Your task to perform on an android device: clear history in the chrome app Image 0: 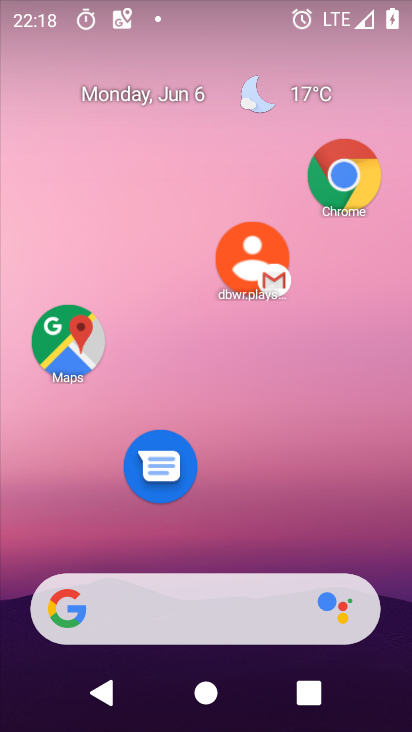
Step 0: click (225, 155)
Your task to perform on an android device: clear history in the chrome app Image 1: 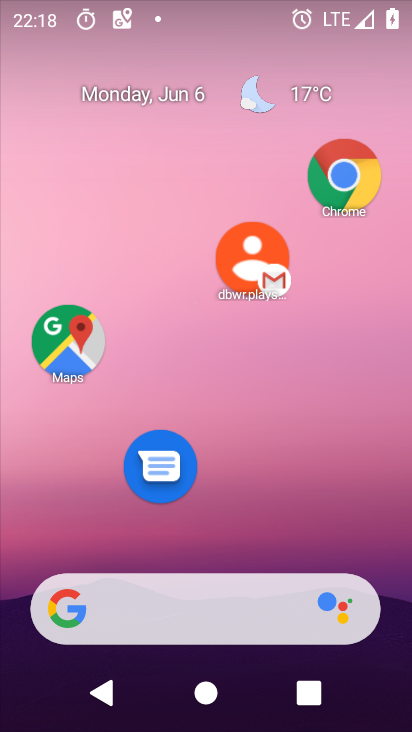
Step 1: click (342, 169)
Your task to perform on an android device: clear history in the chrome app Image 2: 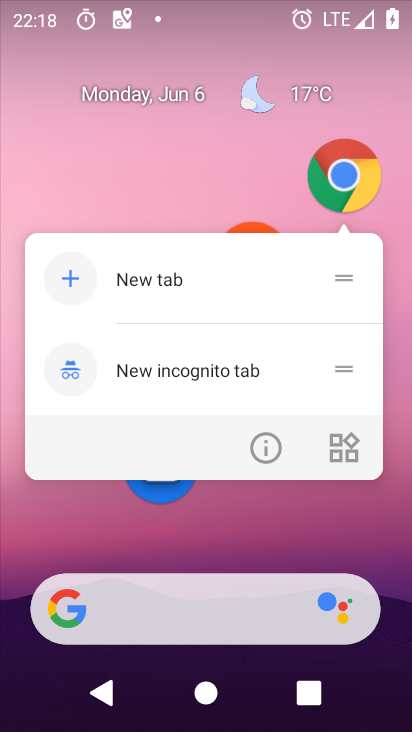
Step 2: click (271, 432)
Your task to perform on an android device: clear history in the chrome app Image 3: 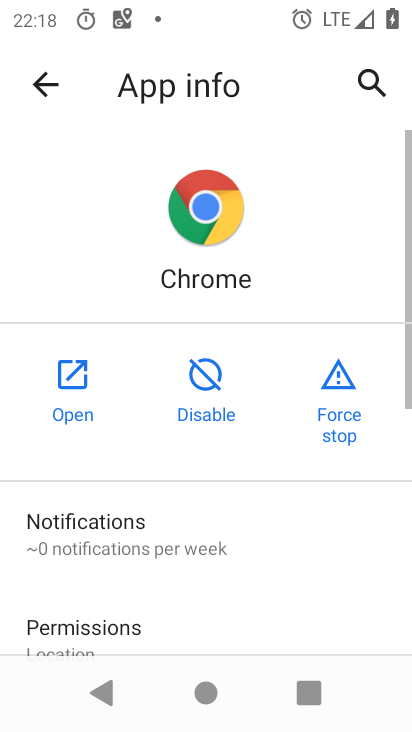
Step 3: click (92, 382)
Your task to perform on an android device: clear history in the chrome app Image 4: 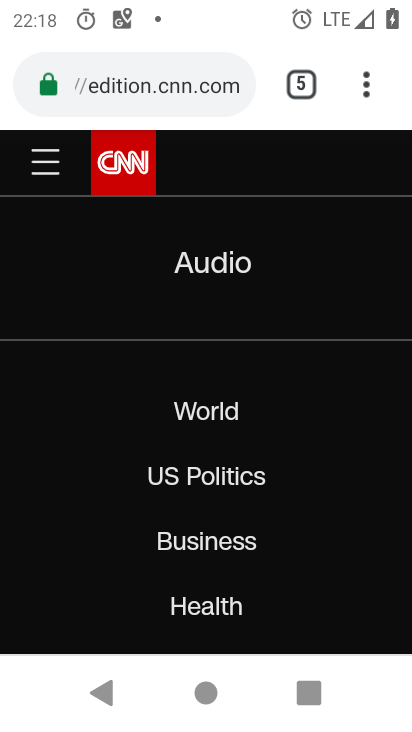
Step 4: drag from (373, 79) to (114, 497)
Your task to perform on an android device: clear history in the chrome app Image 5: 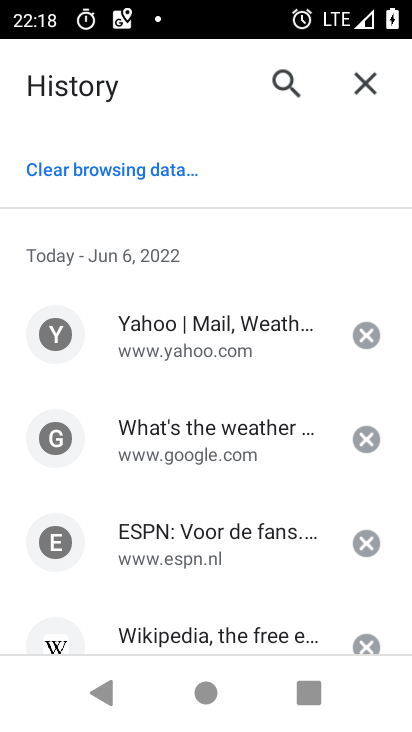
Step 5: click (85, 164)
Your task to perform on an android device: clear history in the chrome app Image 6: 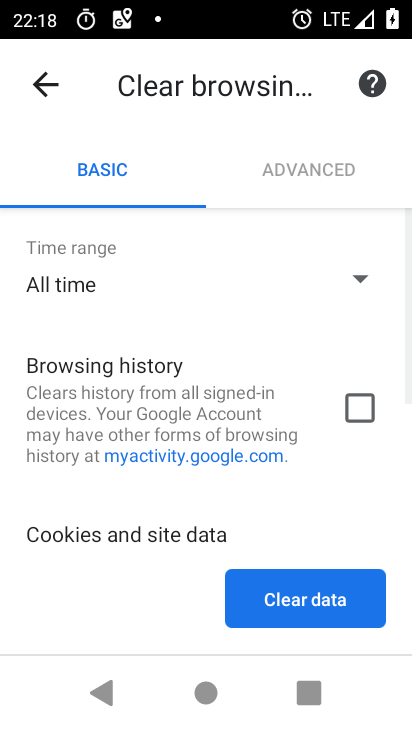
Step 6: drag from (311, 548) to (349, 278)
Your task to perform on an android device: clear history in the chrome app Image 7: 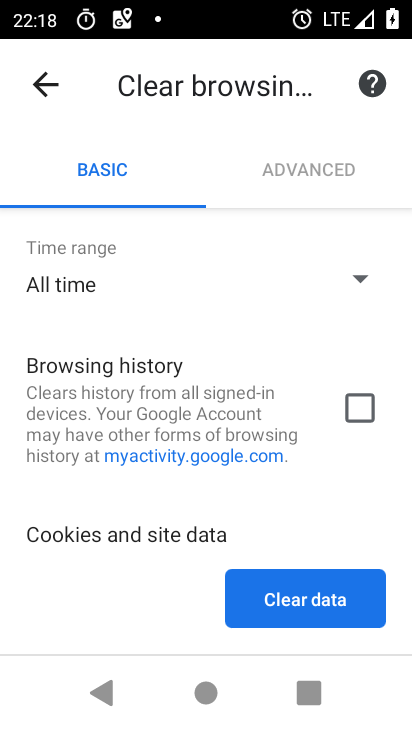
Step 7: click (285, 601)
Your task to perform on an android device: clear history in the chrome app Image 8: 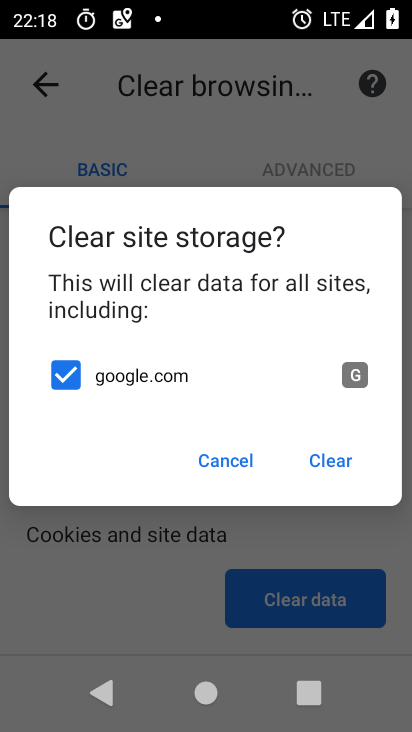
Step 8: click (312, 465)
Your task to perform on an android device: clear history in the chrome app Image 9: 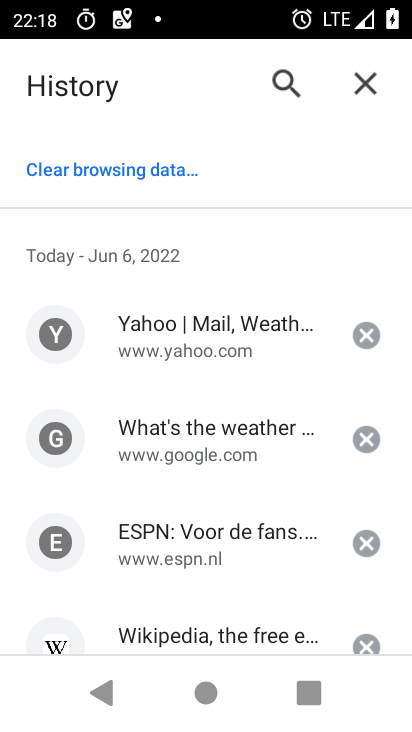
Step 9: task complete